Your task to perform on an android device: Open my contact list Image 0: 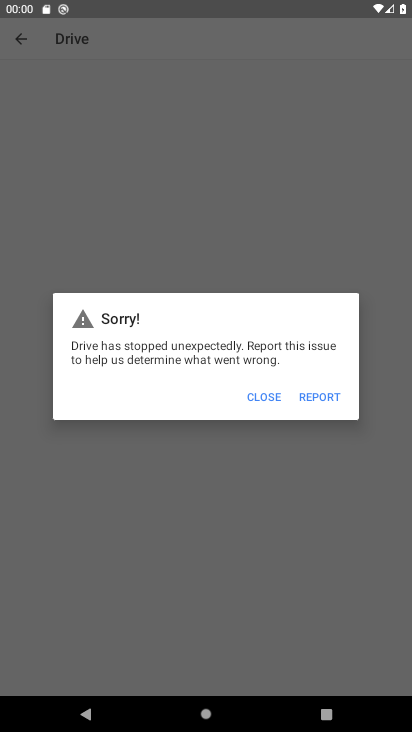
Step 0: press home button
Your task to perform on an android device: Open my contact list Image 1: 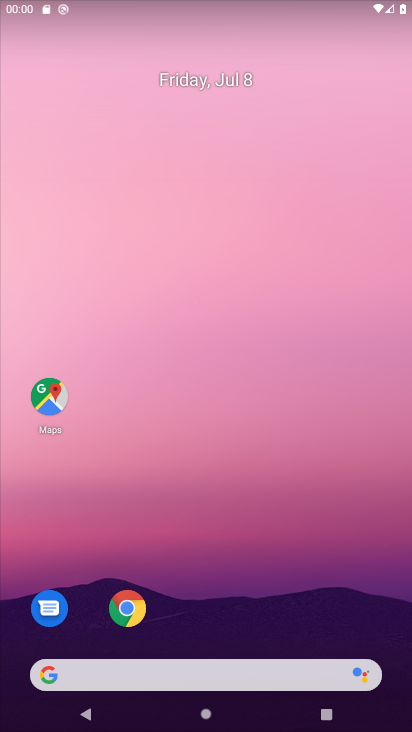
Step 1: drag from (286, 596) to (233, 69)
Your task to perform on an android device: Open my contact list Image 2: 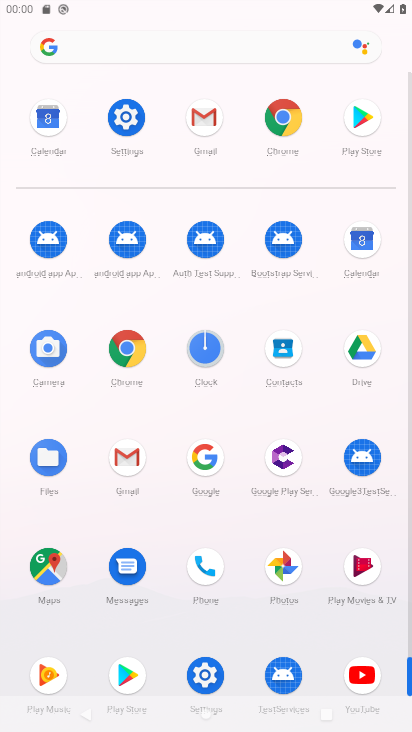
Step 2: click (192, 569)
Your task to perform on an android device: Open my contact list Image 3: 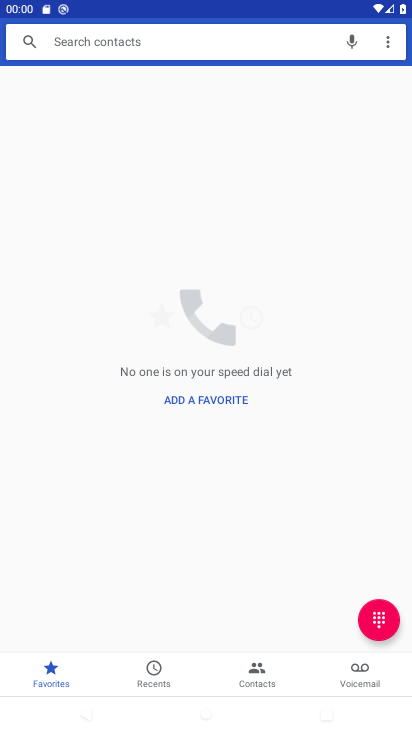
Step 3: click (259, 682)
Your task to perform on an android device: Open my contact list Image 4: 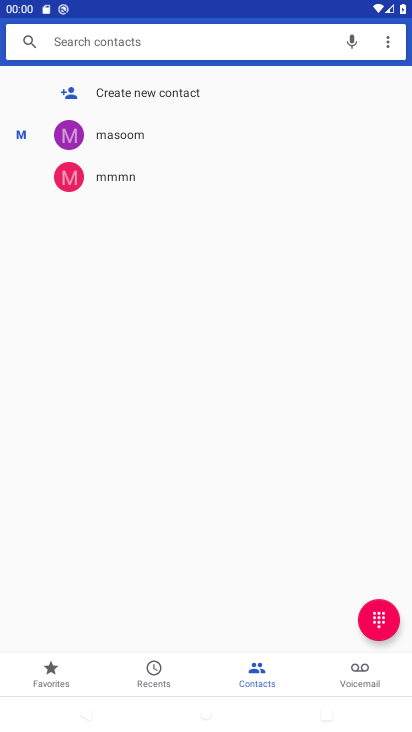
Step 4: task complete